Your task to perform on an android device: toggle show notifications on the lock screen Image 0: 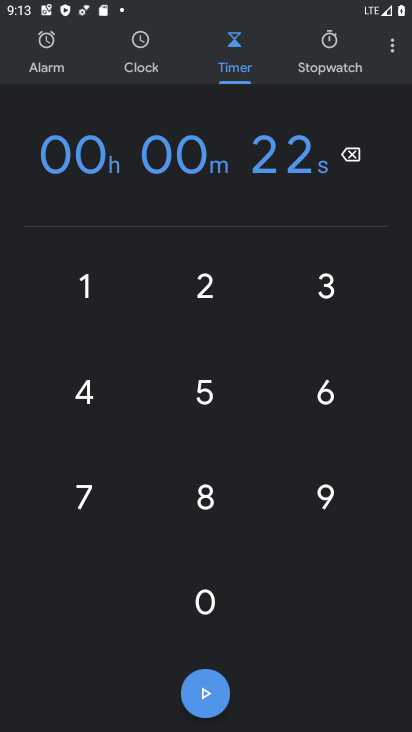
Step 0: press home button
Your task to perform on an android device: toggle show notifications on the lock screen Image 1: 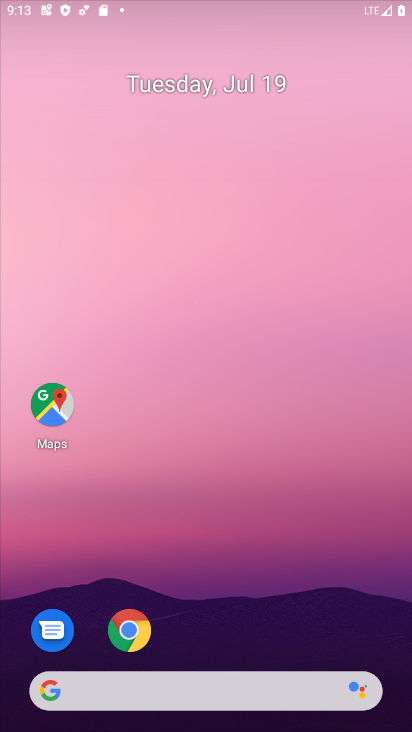
Step 1: drag from (184, 609) to (163, 70)
Your task to perform on an android device: toggle show notifications on the lock screen Image 2: 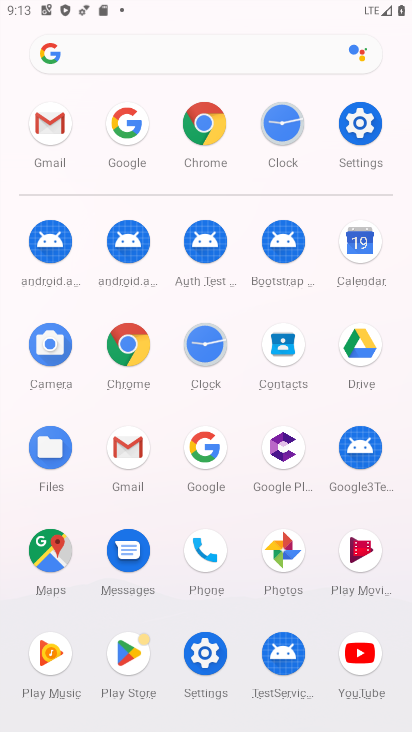
Step 2: click (354, 128)
Your task to perform on an android device: toggle show notifications on the lock screen Image 3: 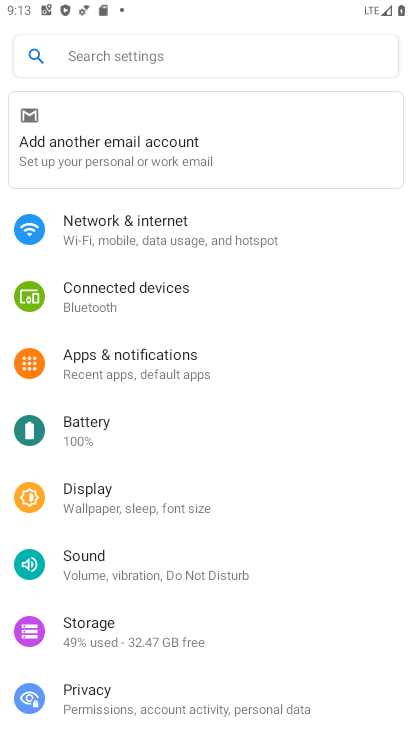
Step 3: click (148, 362)
Your task to perform on an android device: toggle show notifications on the lock screen Image 4: 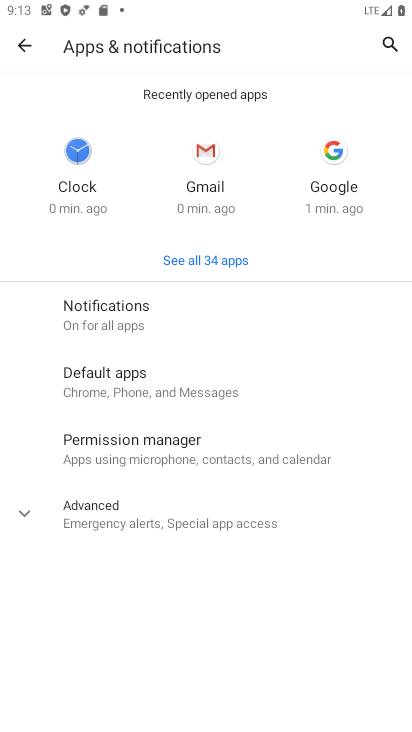
Step 4: click (134, 306)
Your task to perform on an android device: toggle show notifications on the lock screen Image 5: 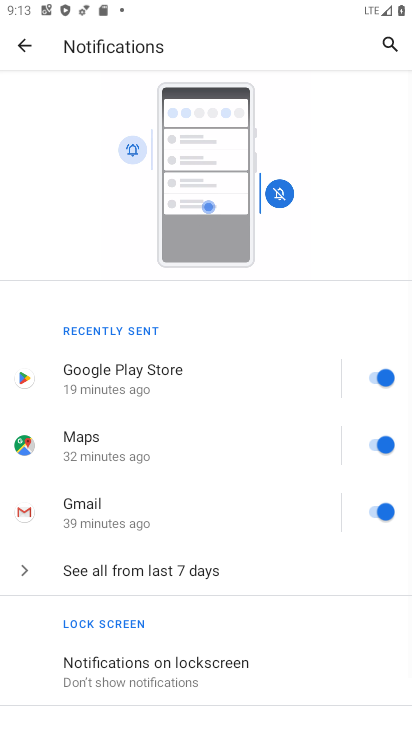
Step 5: click (152, 662)
Your task to perform on an android device: toggle show notifications on the lock screen Image 6: 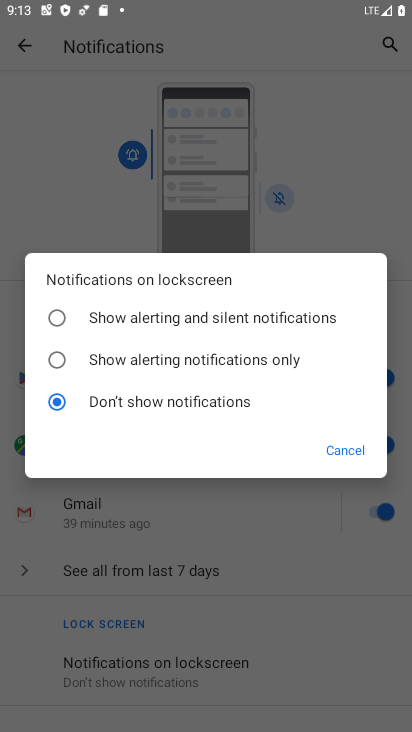
Step 6: click (56, 319)
Your task to perform on an android device: toggle show notifications on the lock screen Image 7: 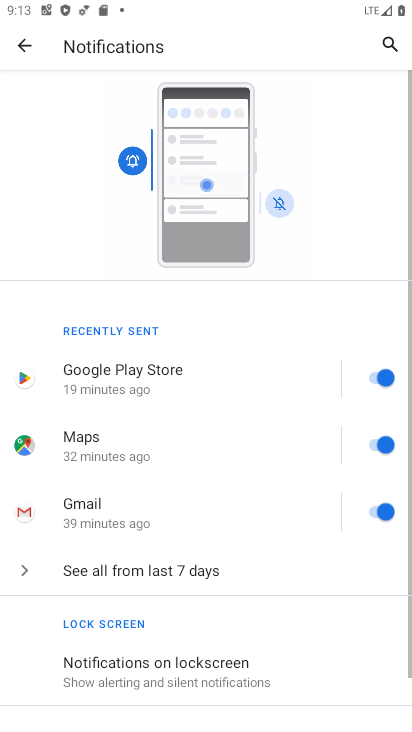
Step 7: task complete